Your task to perform on an android device: change the clock display to digital Image 0: 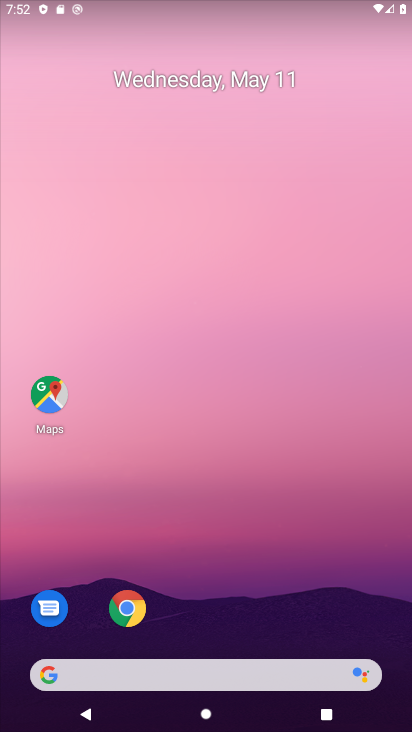
Step 0: drag from (229, 625) to (160, 107)
Your task to perform on an android device: change the clock display to digital Image 1: 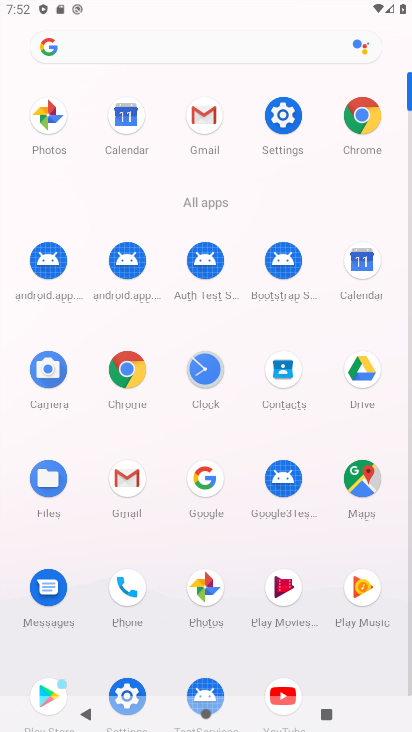
Step 1: click (297, 126)
Your task to perform on an android device: change the clock display to digital Image 2: 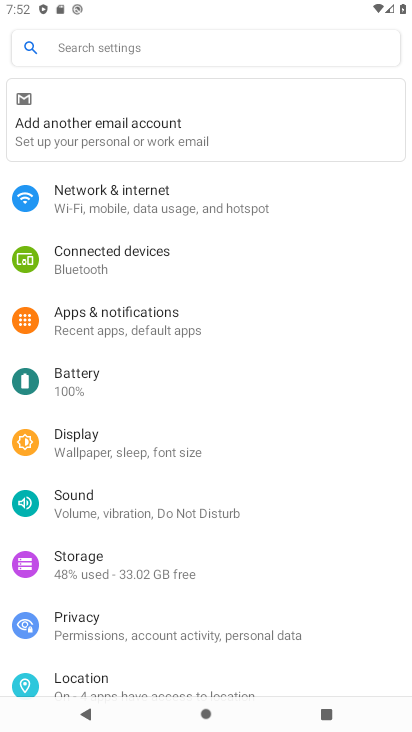
Step 2: press home button
Your task to perform on an android device: change the clock display to digital Image 3: 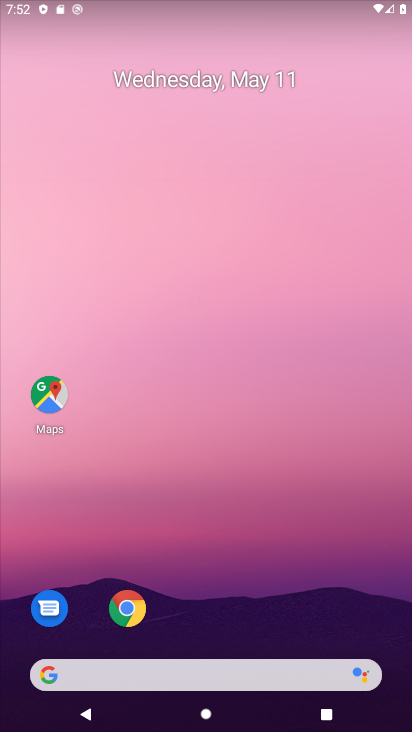
Step 3: drag from (278, 602) to (198, 20)
Your task to perform on an android device: change the clock display to digital Image 4: 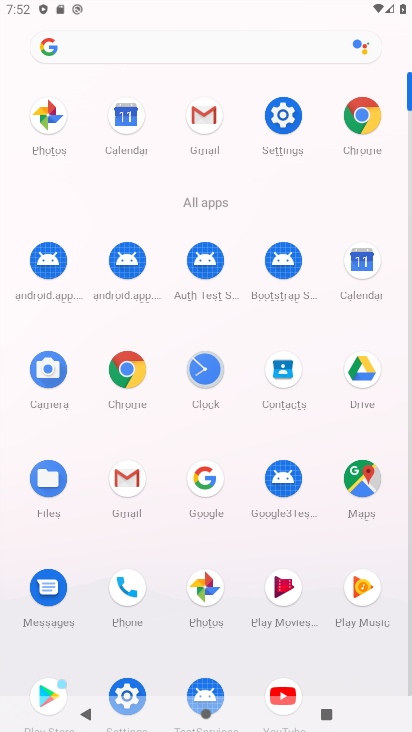
Step 4: click (199, 380)
Your task to perform on an android device: change the clock display to digital Image 5: 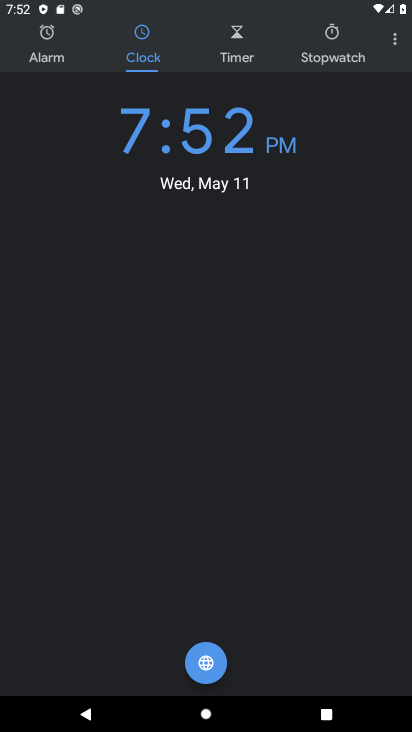
Step 5: click (387, 43)
Your task to perform on an android device: change the clock display to digital Image 6: 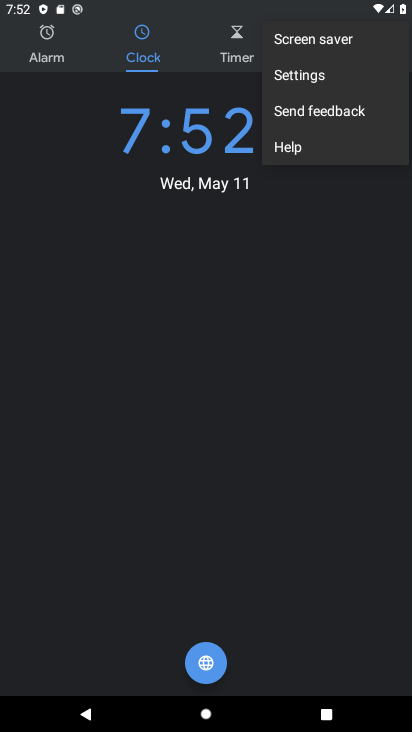
Step 6: click (344, 67)
Your task to perform on an android device: change the clock display to digital Image 7: 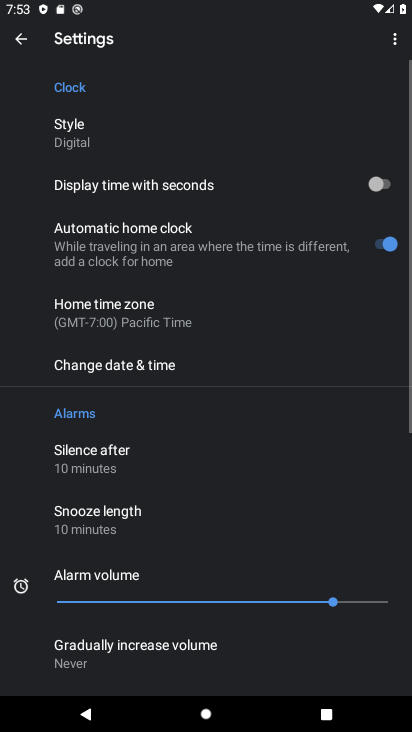
Step 7: click (179, 130)
Your task to perform on an android device: change the clock display to digital Image 8: 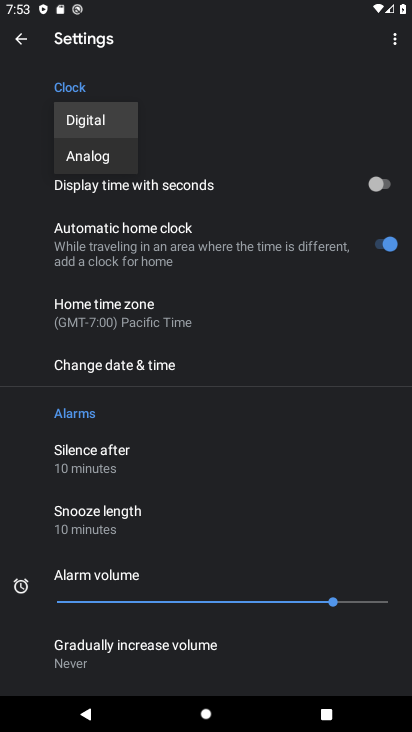
Step 8: task complete